Your task to perform on an android device: all mails in gmail Image 0: 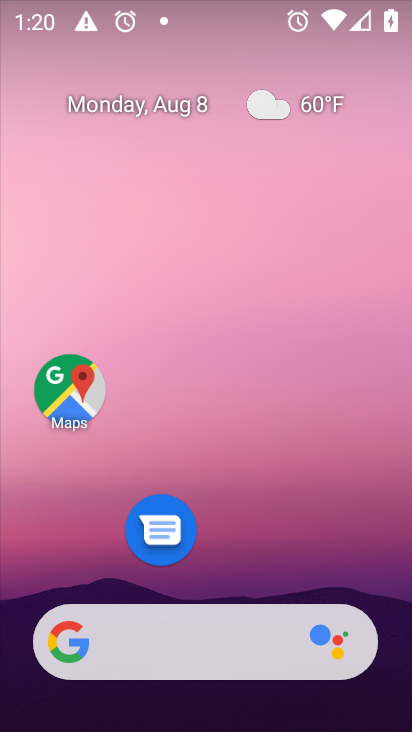
Step 0: drag from (232, 585) to (227, 201)
Your task to perform on an android device: all mails in gmail Image 1: 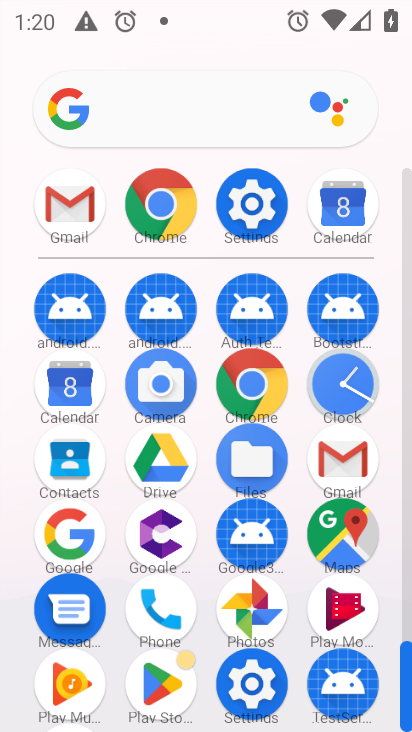
Step 1: click (345, 464)
Your task to perform on an android device: all mails in gmail Image 2: 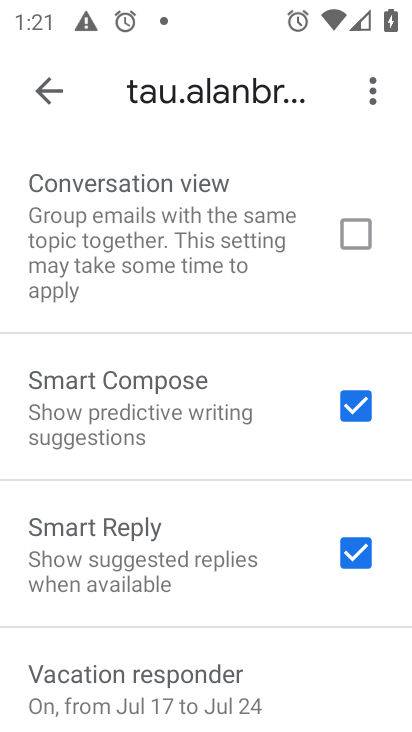
Step 2: click (41, 90)
Your task to perform on an android device: all mails in gmail Image 3: 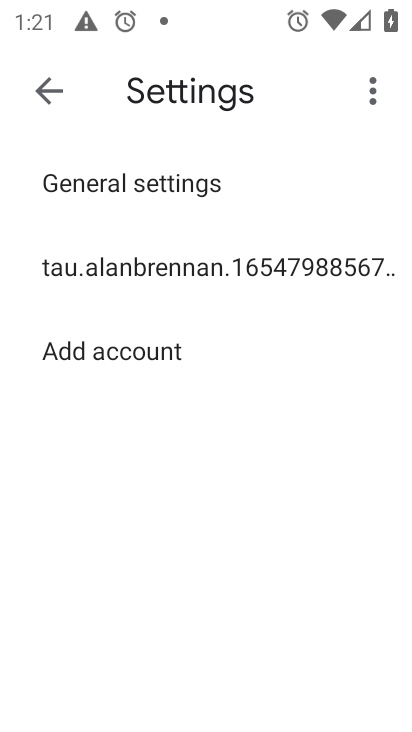
Step 3: click (41, 90)
Your task to perform on an android device: all mails in gmail Image 4: 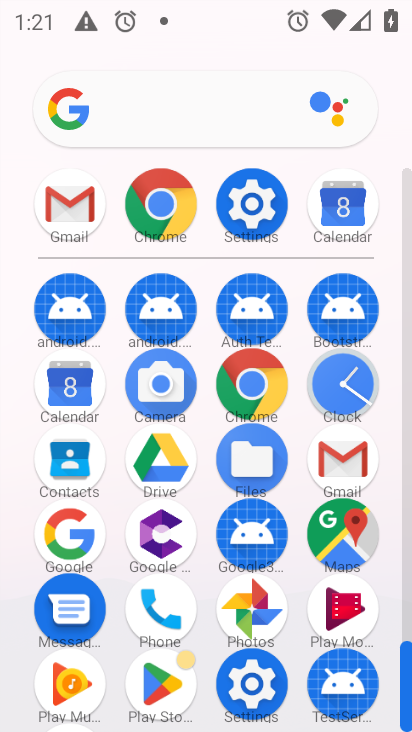
Step 4: click (74, 201)
Your task to perform on an android device: all mails in gmail Image 5: 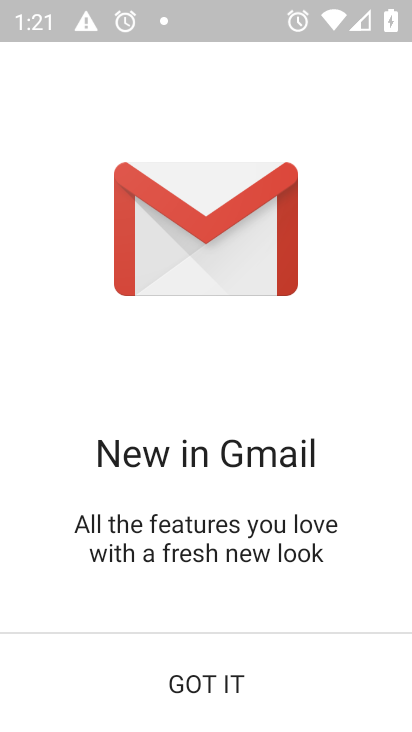
Step 5: click (210, 688)
Your task to perform on an android device: all mails in gmail Image 6: 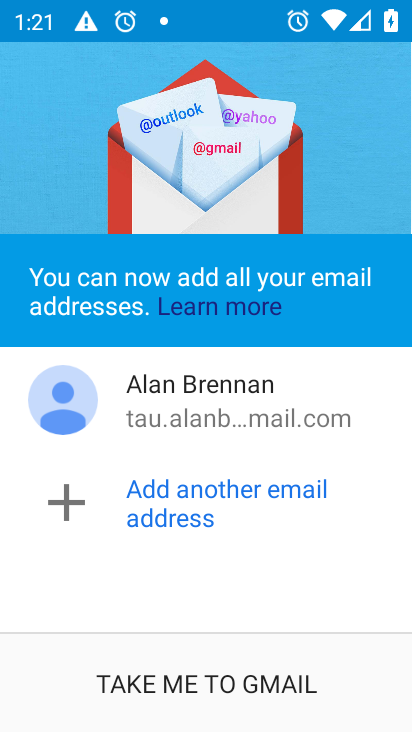
Step 6: click (210, 689)
Your task to perform on an android device: all mails in gmail Image 7: 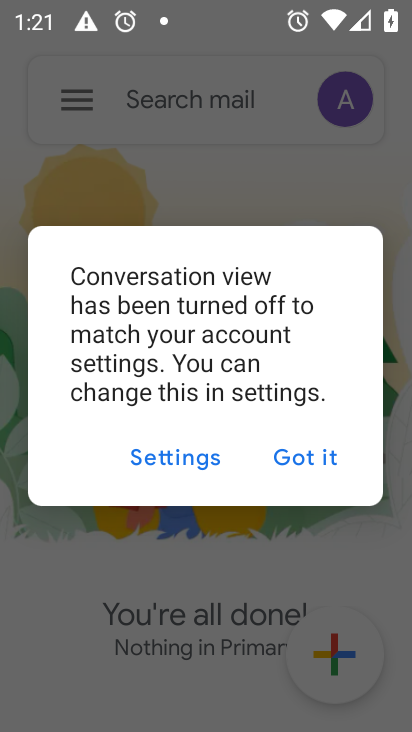
Step 7: click (297, 458)
Your task to perform on an android device: all mails in gmail Image 8: 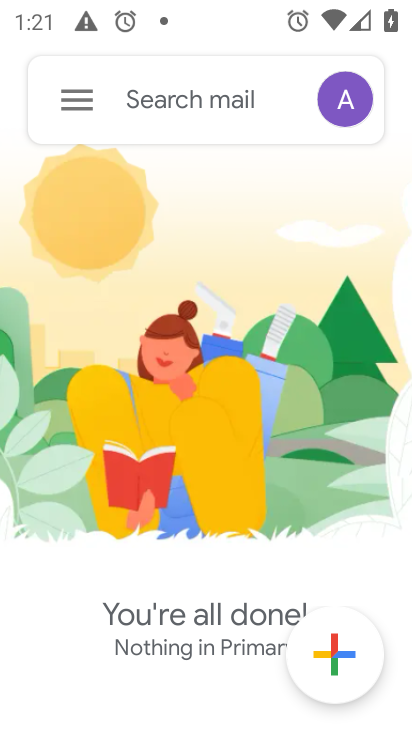
Step 8: click (72, 92)
Your task to perform on an android device: all mails in gmail Image 9: 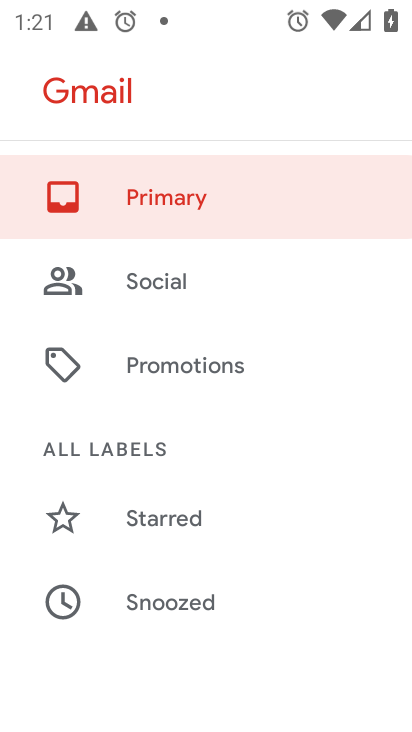
Step 9: drag from (178, 580) to (178, 261)
Your task to perform on an android device: all mails in gmail Image 10: 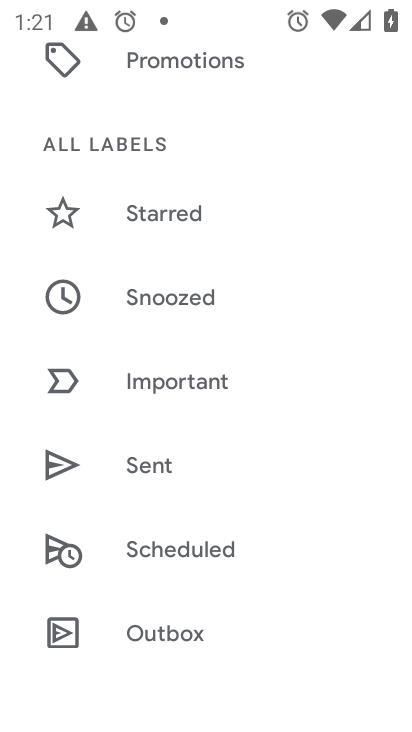
Step 10: drag from (181, 602) to (181, 282)
Your task to perform on an android device: all mails in gmail Image 11: 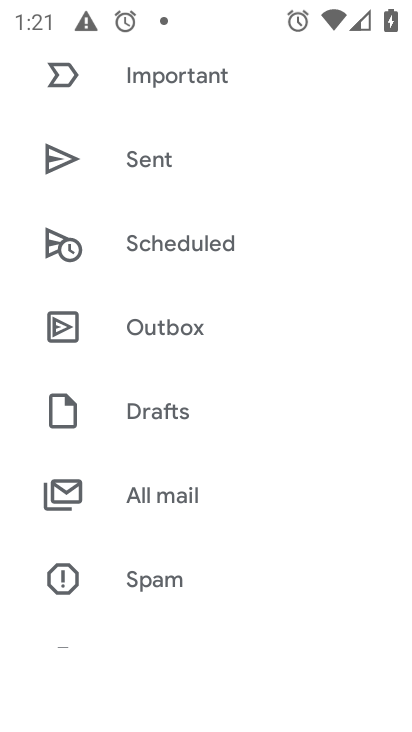
Step 11: click (164, 496)
Your task to perform on an android device: all mails in gmail Image 12: 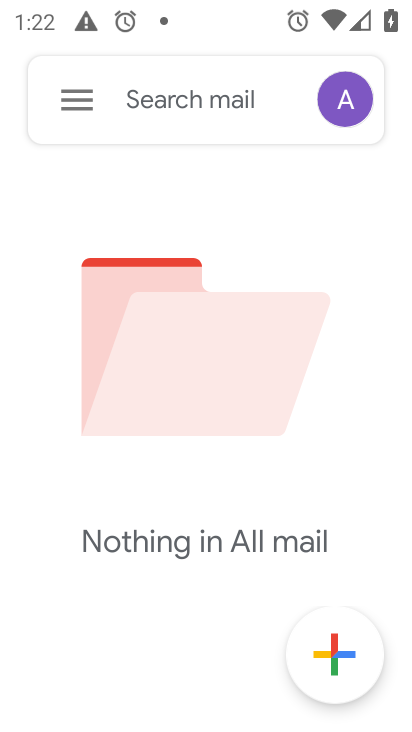
Step 12: task complete